Your task to perform on an android device: read, delete, or share a saved page in the chrome app Image 0: 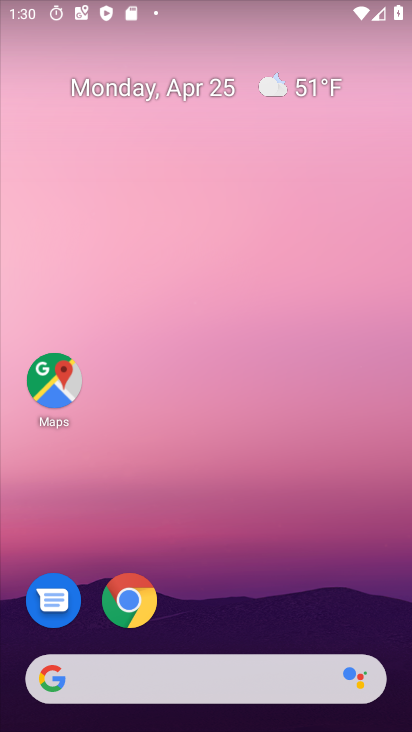
Step 0: click (127, 606)
Your task to perform on an android device: read, delete, or share a saved page in the chrome app Image 1: 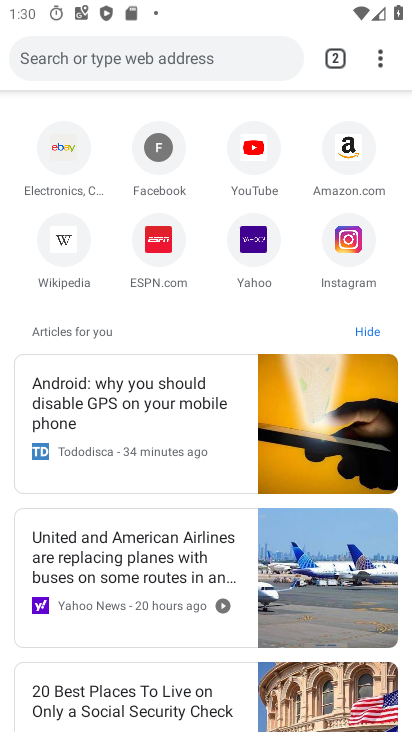
Step 1: drag from (380, 61) to (205, 384)
Your task to perform on an android device: read, delete, or share a saved page in the chrome app Image 2: 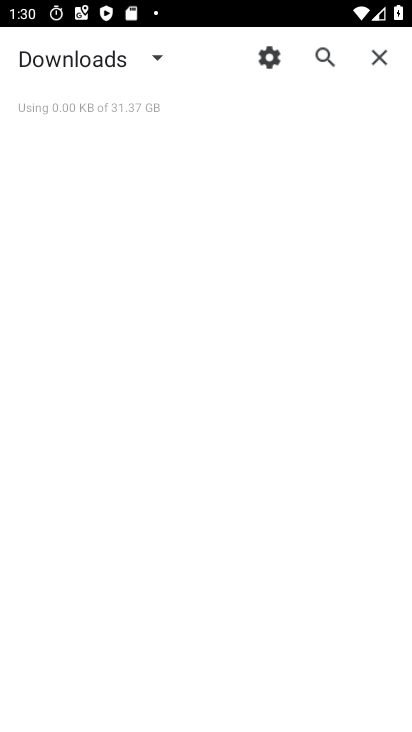
Step 2: click (141, 57)
Your task to perform on an android device: read, delete, or share a saved page in the chrome app Image 3: 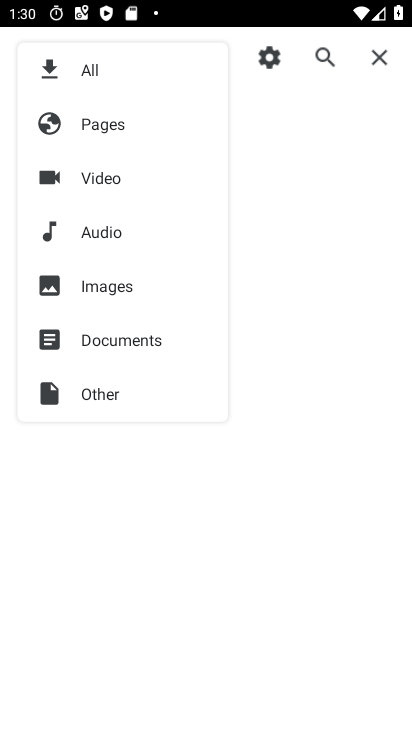
Step 3: click (100, 127)
Your task to perform on an android device: read, delete, or share a saved page in the chrome app Image 4: 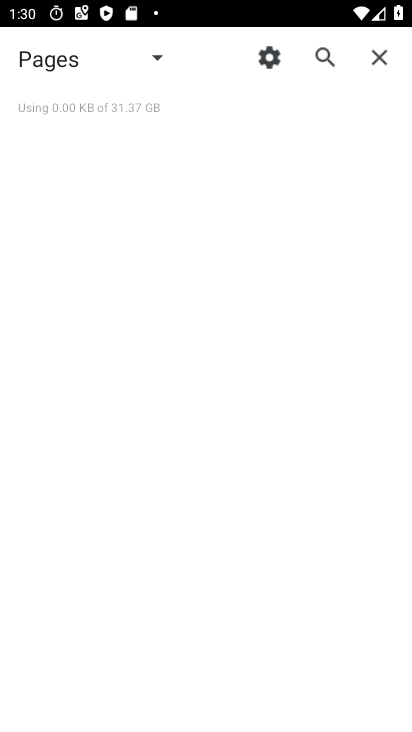
Step 4: task complete